Your task to perform on an android device: What's on my calendar tomorrow? Image 0: 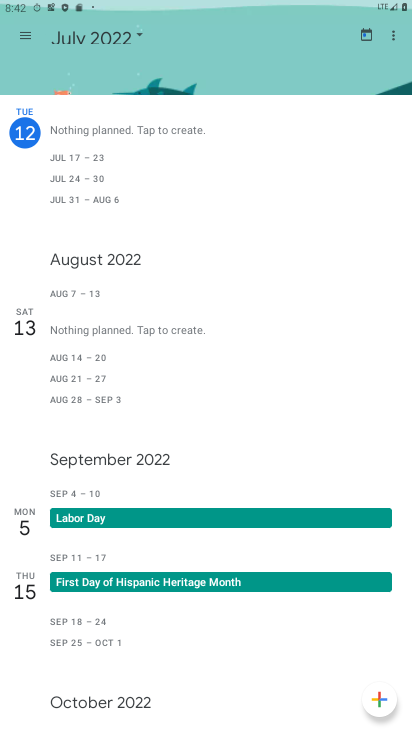
Step 0: press home button
Your task to perform on an android device: What's on my calendar tomorrow? Image 1: 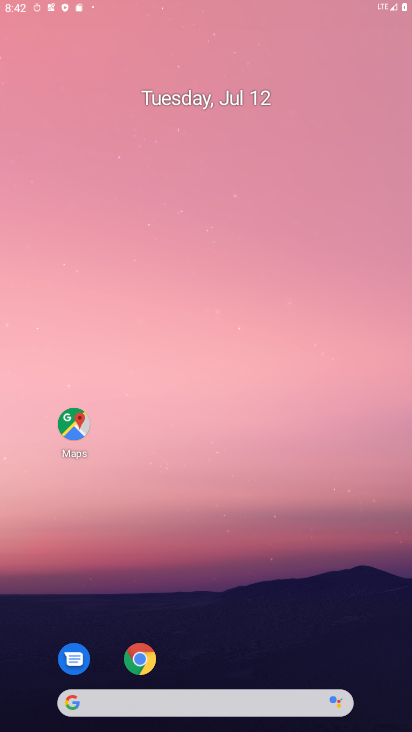
Step 1: drag from (384, 689) to (322, 37)
Your task to perform on an android device: What's on my calendar tomorrow? Image 2: 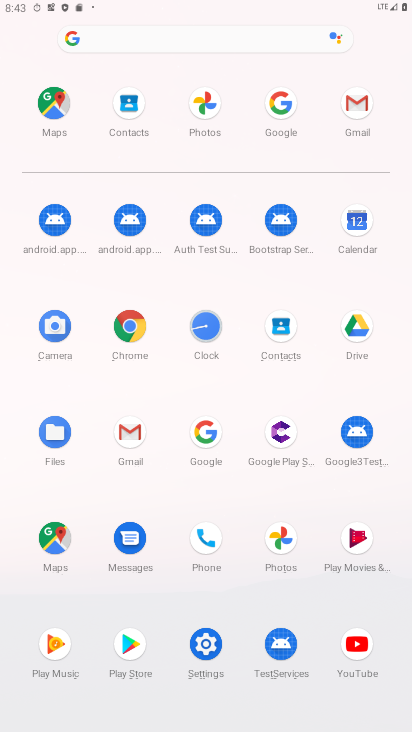
Step 2: click (363, 229)
Your task to perform on an android device: What's on my calendar tomorrow? Image 3: 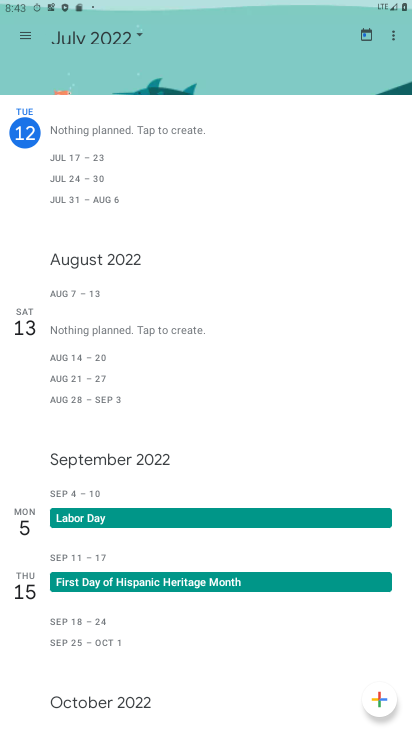
Step 3: click (79, 39)
Your task to perform on an android device: What's on my calendar tomorrow? Image 4: 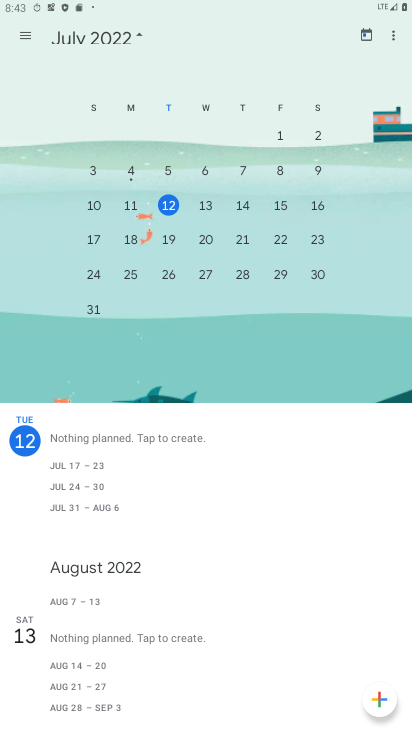
Step 4: click (244, 207)
Your task to perform on an android device: What's on my calendar tomorrow? Image 5: 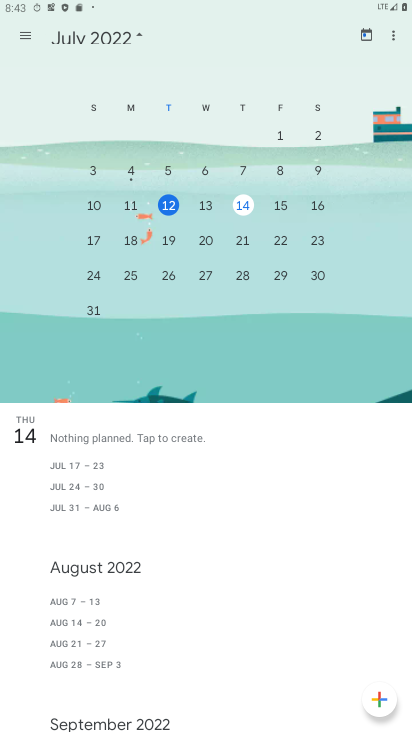
Step 5: click (183, 463)
Your task to perform on an android device: What's on my calendar tomorrow? Image 6: 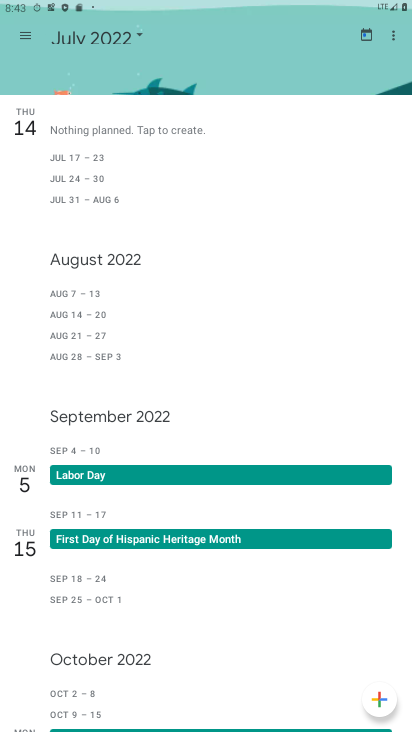
Step 6: task complete